Your task to perform on an android device: Open notification settings Image 0: 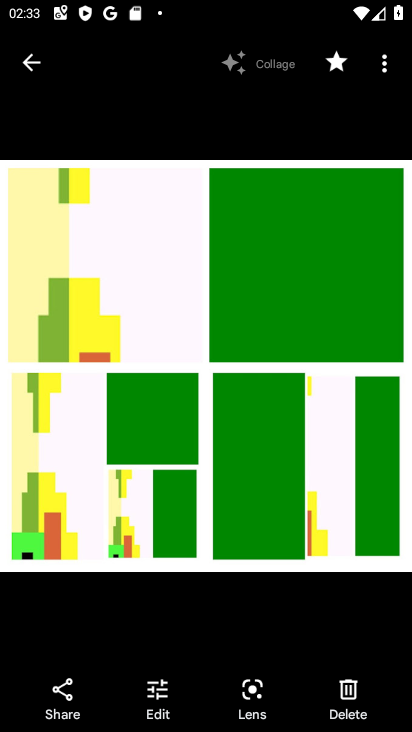
Step 0: press home button
Your task to perform on an android device: Open notification settings Image 1: 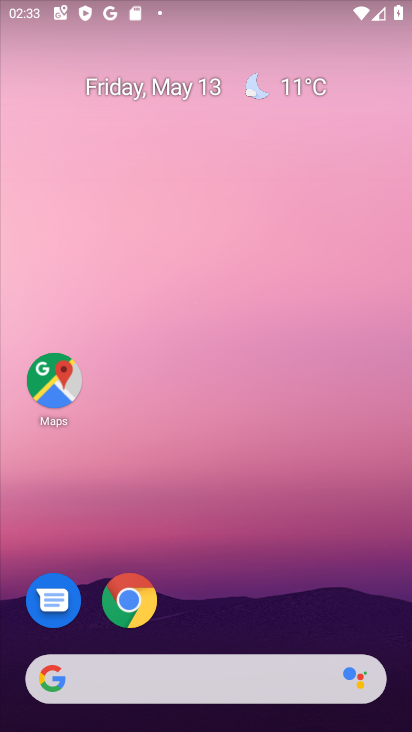
Step 1: drag from (236, 596) to (265, 92)
Your task to perform on an android device: Open notification settings Image 2: 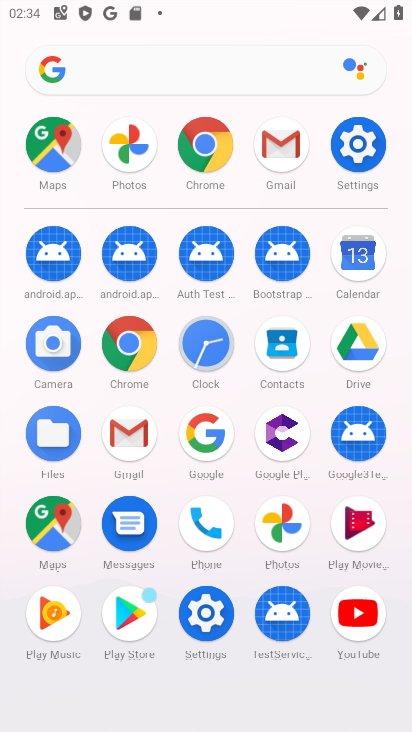
Step 2: click (352, 143)
Your task to perform on an android device: Open notification settings Image 3: 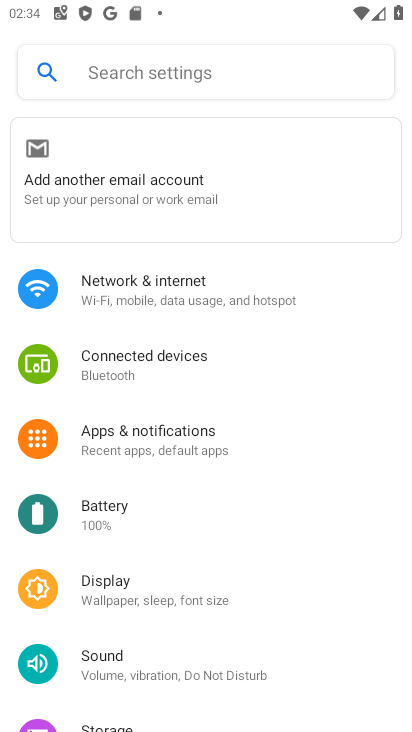
Step 3: click (171, 450)
Your task to perform on an android device: Open notification settings Image 4: 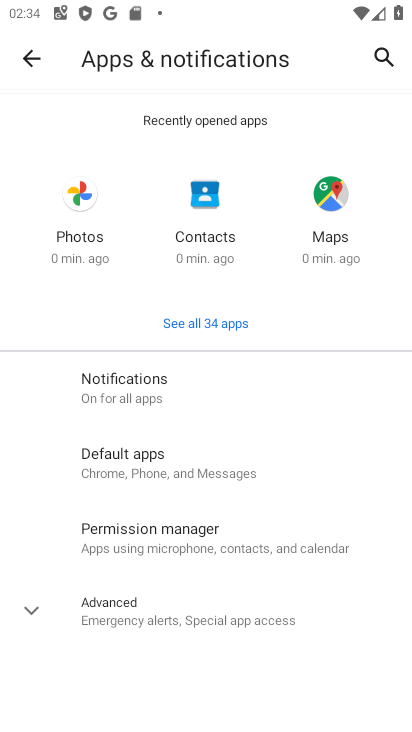
Step 4: click (191, 389)
Your task to perform on an android device: Open notification settings Image 5: 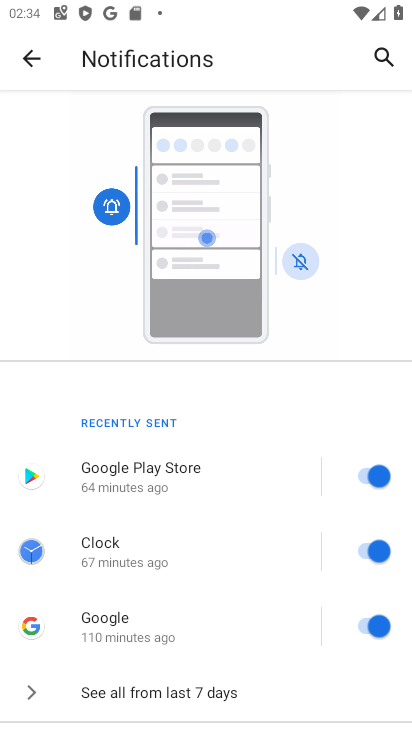
Step 5: task complete